Your task to perform on an android device: clear all cookies in the chrome app Image 0: 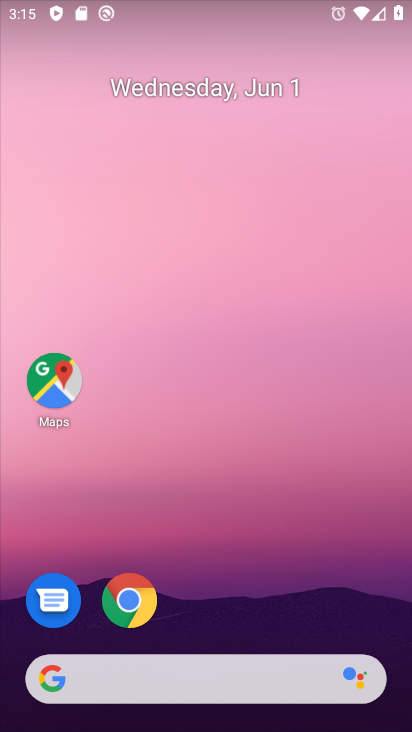
Step 0: drag from (225, 618) to (220, 147)
Your task to perform on an android device: clear all cookies in the chrome app Image 1: 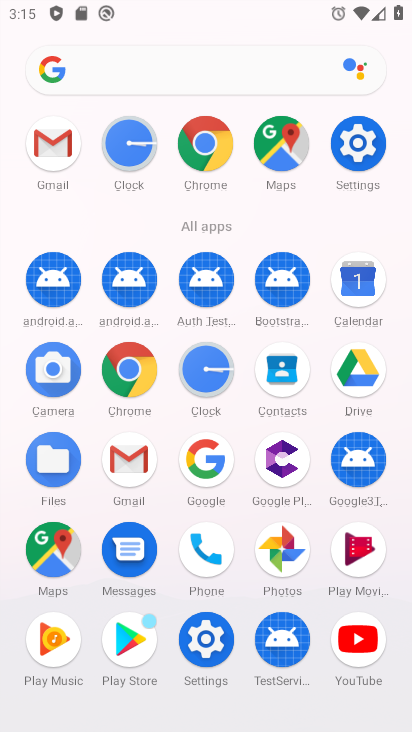
Step 1: click (121, 369)
Your task to perform on an android device: clear all cookies in the chrome app Image 2: 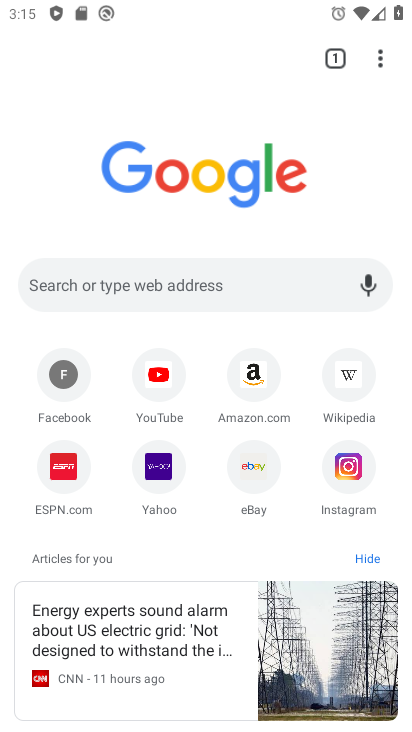
Step 2: click (382, 60)
Your task to perform on an android device: clear all cookies in the chrome app Image 3: 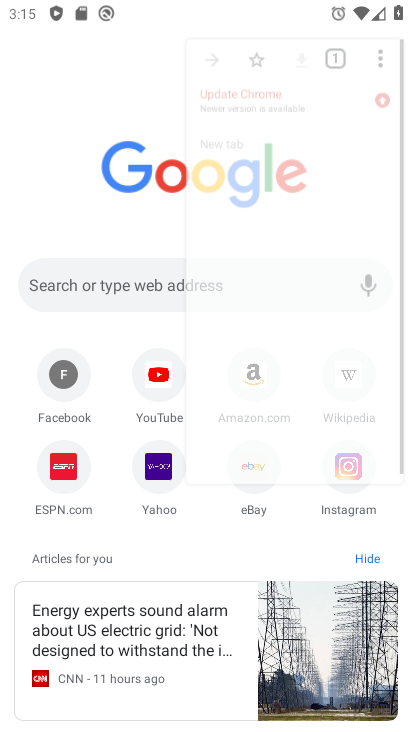
Step 3: click (382, 61)
Your task to perform on an android device: clear all cookies in the chrome app Image 4: 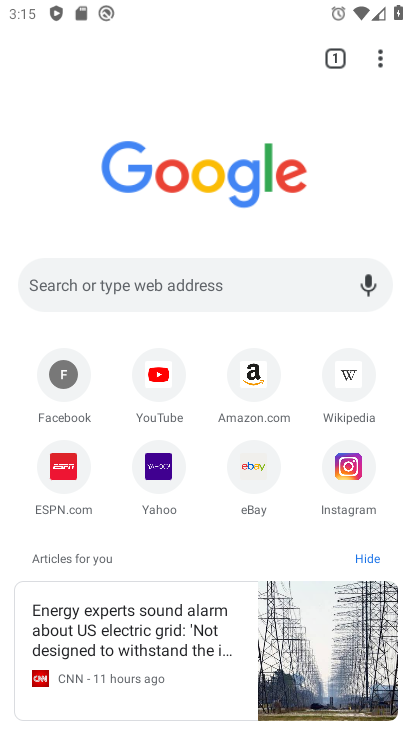
Step 4: click (378, 62)
Your task to perform on an android device: clear all cookies in the chrome app Image 5: 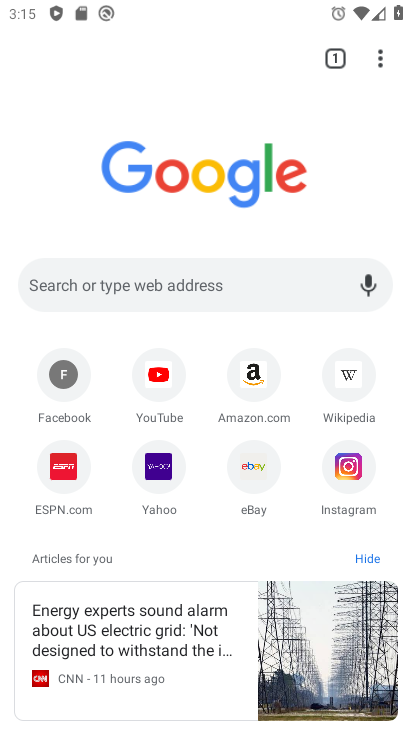
Step 5: click (374, 56)
Your task to perform on an android device: clear all cookies in the chrome app Image 6: 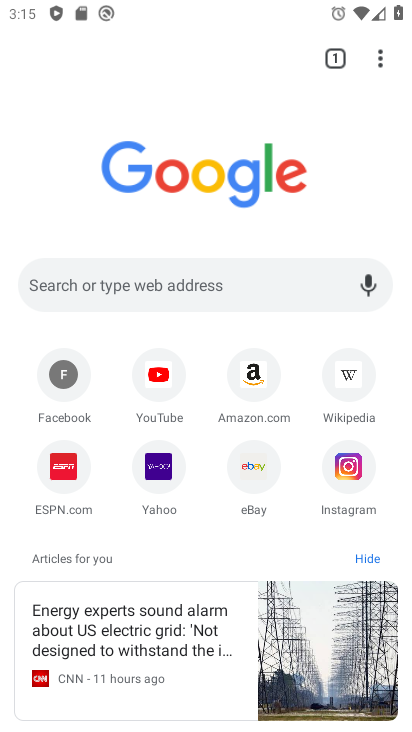
Step 6: click (383, 63)
Your task to perform on an android device: clear all cookies in the chrome app Image 7: 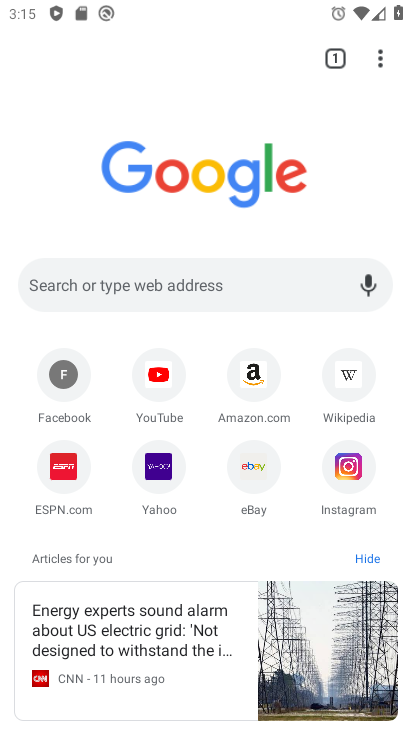
Step 7: click (380, 60)
Your task to perform on an android device: clear all cookies in the chrome app Image 8: 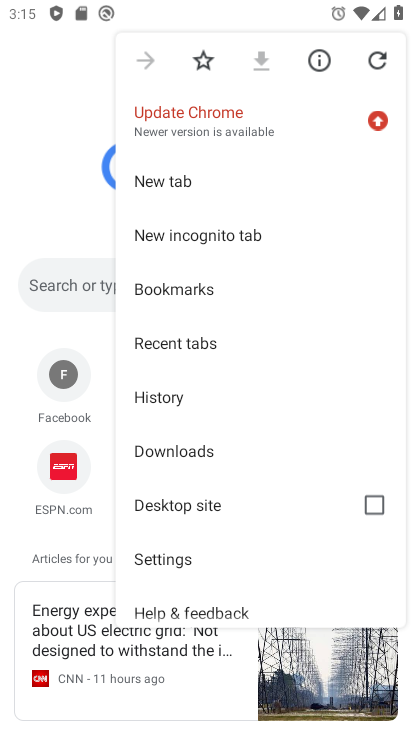
Step 8: click (167, 399)
Your task to perform on an android device: clear all cookies in the chrome app Image 9: 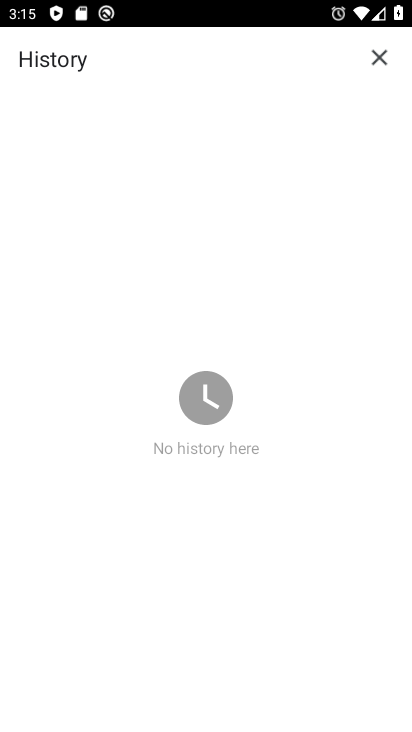
Step 9: task complete